Your task to perform on an android device: Open wifi settings Image 0: 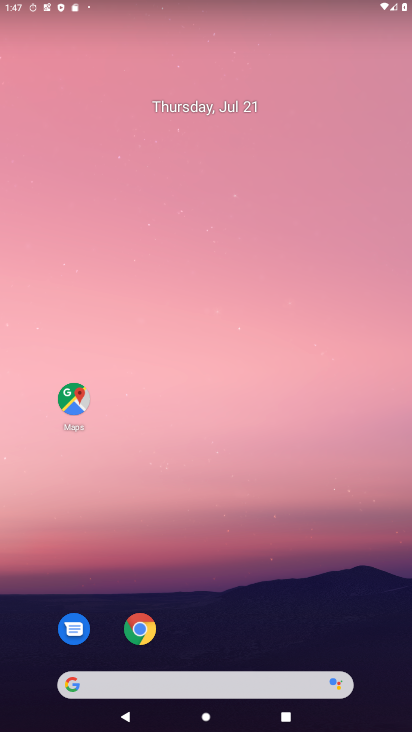
Step 0: drag from (26, 690) to (222, 26)
Your task to perform on an android device: Open wifi settings Image 1: 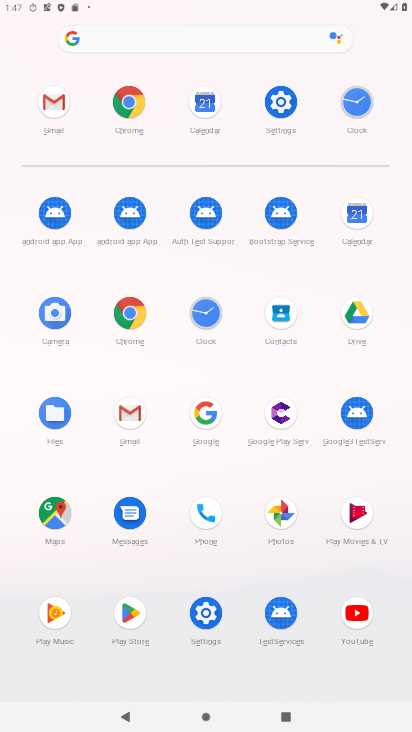
Step 1: click (191, 608)
Your task to perform on an android device: Open wifi settings Image 2: 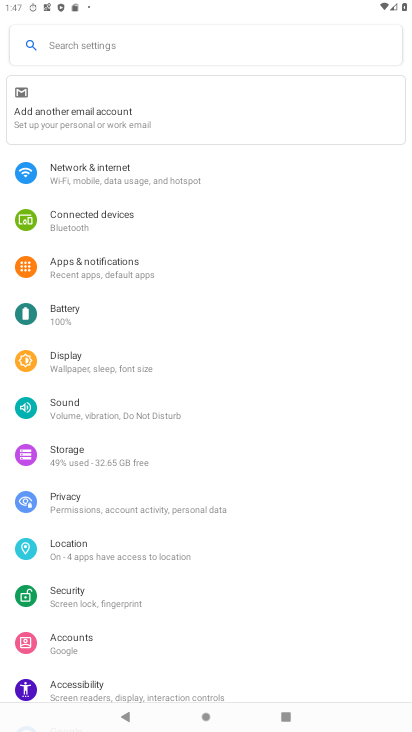
Step 2: click (123, 171)
Your task to perform on an android device: Open wifi settings Image 3: 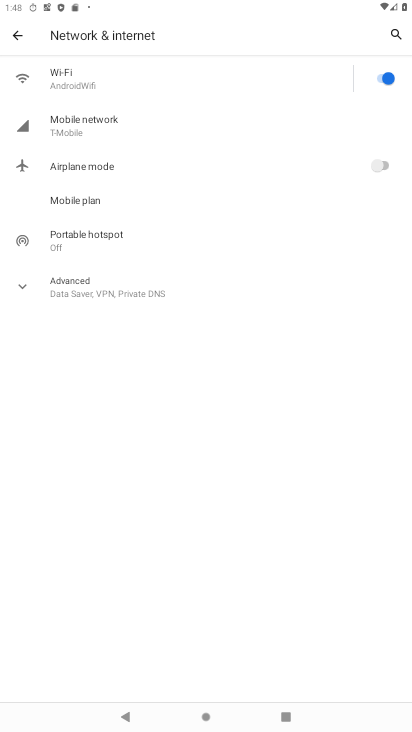
Step 3: task complete